Your task to perform on an android device: allow notifications from all sites in the chrome app Image 0: 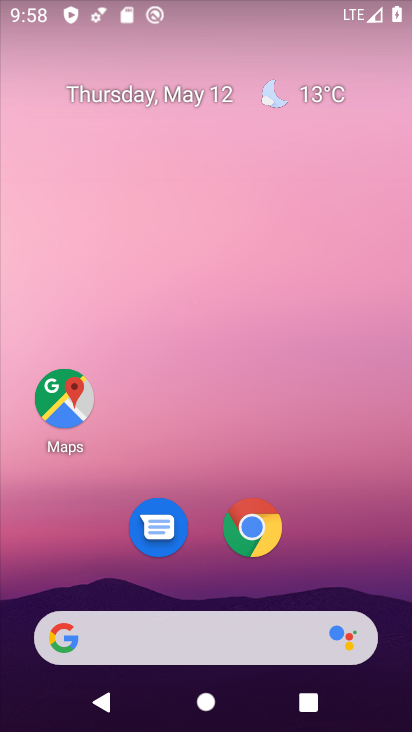
Step 0: click (249, 527)
Your task to perform on an android device: allow notifications from all sites in the chrome app Image 1: 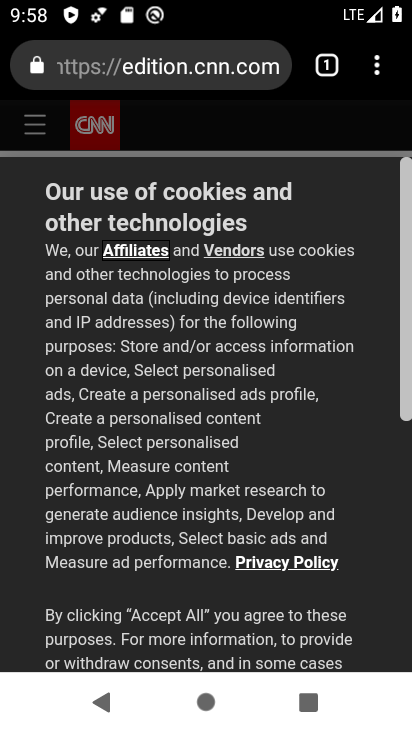
Step 1: click (377, 62)
Your task to perform on an android device: allow notifications from all sites in the chrome app Image 2: 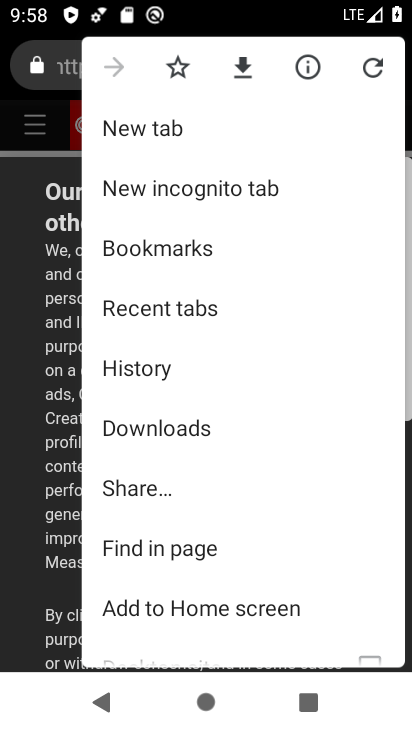
Step 2: drag from (225, 486) to (277, 389)
Your task to perform on an android device: allow notifications from all sites in the chrome app Image 3: 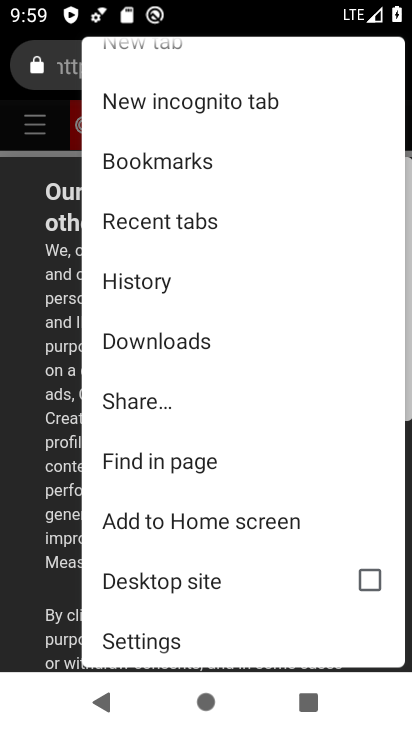
Step 3: drag from (256, 493) to (295, 376)
Your task to perform on an android device: allow notifications from all sites in the chrome app Image 4: 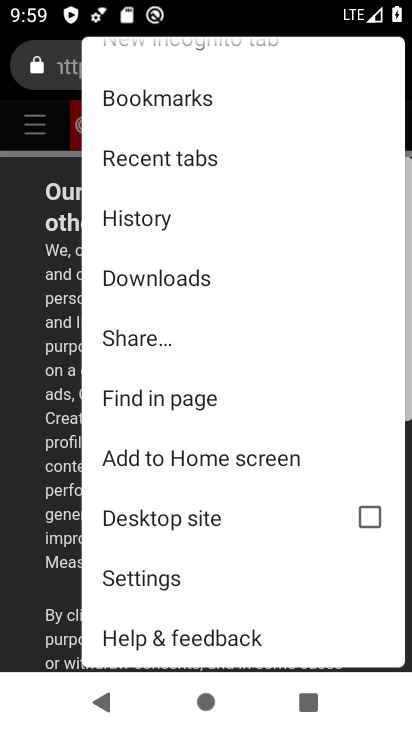
Step 4: click (146, 569)
Your task to perform on an android device: allow notifications from all sites in the chrome app Image 5: 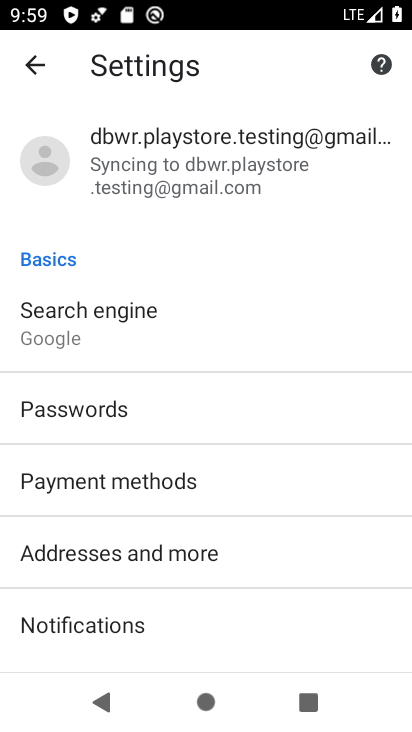
Step 5: drag from (128, 567) to (193, 473)
Your task to perform on an android device: allow notifications from all sites in the chrome app Image 6: 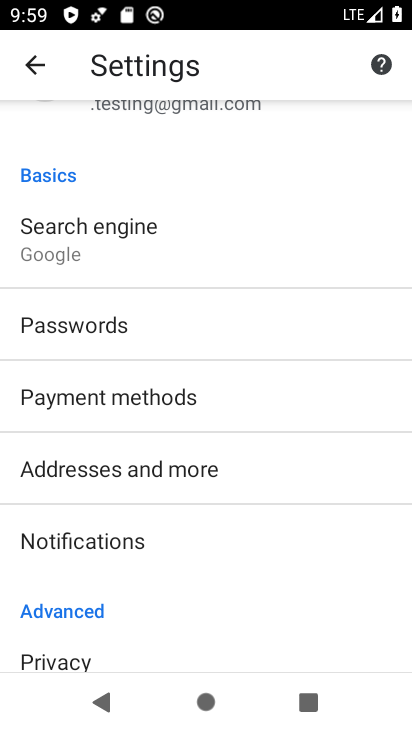
Step 6: drag from (133, 593) to (209, 507)
Your task to perform on an android device: allow notifications from all sites in the chrome app Image 7: 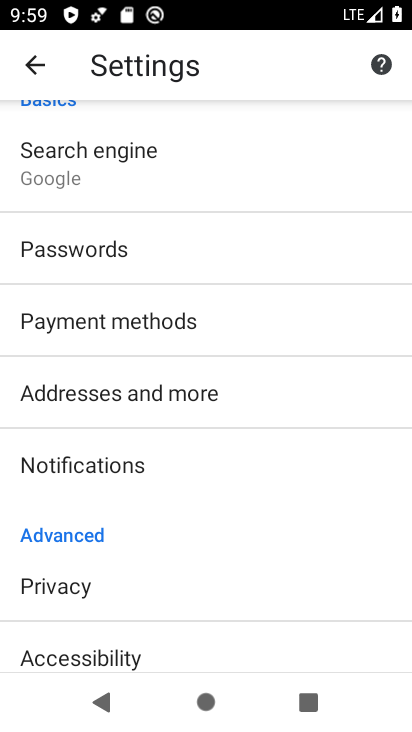
Step 7: drag from (151, 593) to (220, 482)
Your task to perform on an android device: allow notifications from all sites in the chrome app Image 8: 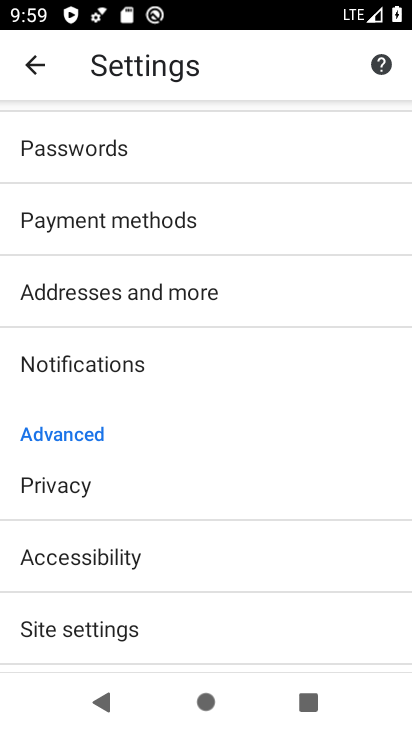
Step 8: click (105, 626)
Your task to perform on an android device: allow notifications from all sites in the chrome app Image 9: 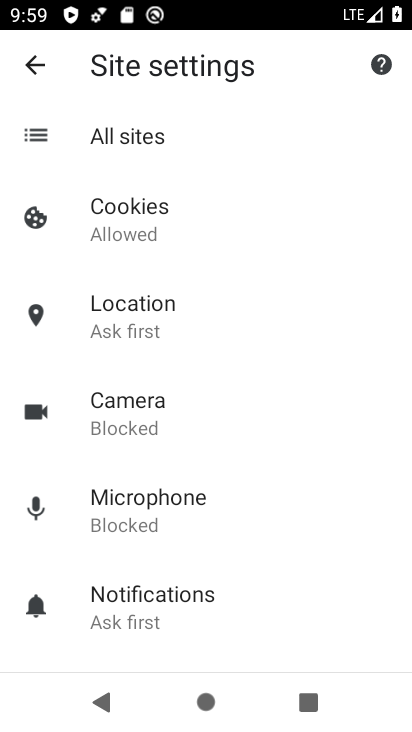
Step 9: click (124, 584)
Your task to perform on an android device: allow notifications from all sites in the chrome app Image 10: 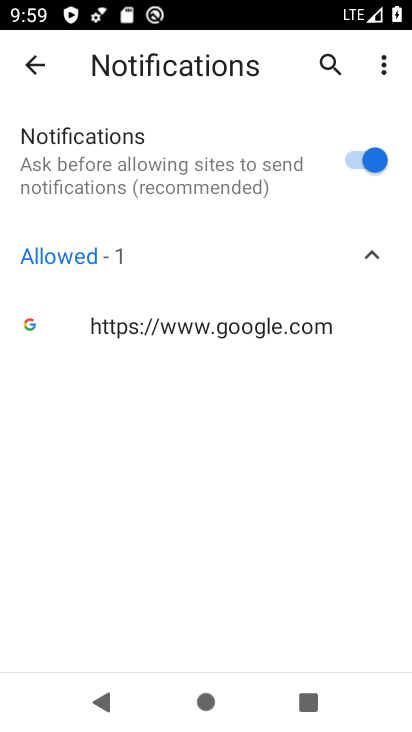
Step 10: task complete